Your task to perform on an android device: open a new tab in the chrome app Image 0: 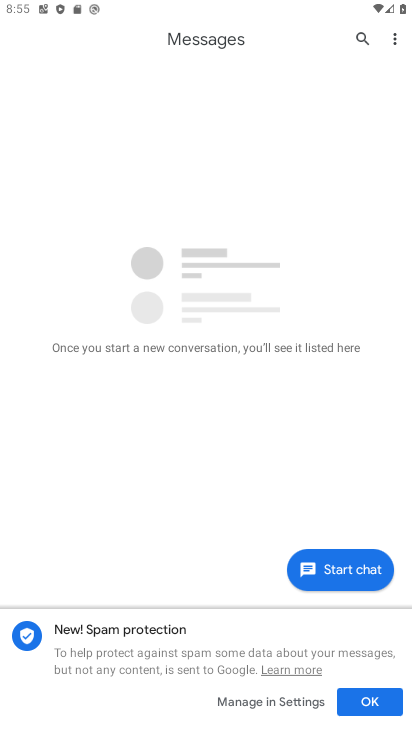
Step 0: press home button
Your task to perform on an android device: open a new tab in the chrome app Image 1: 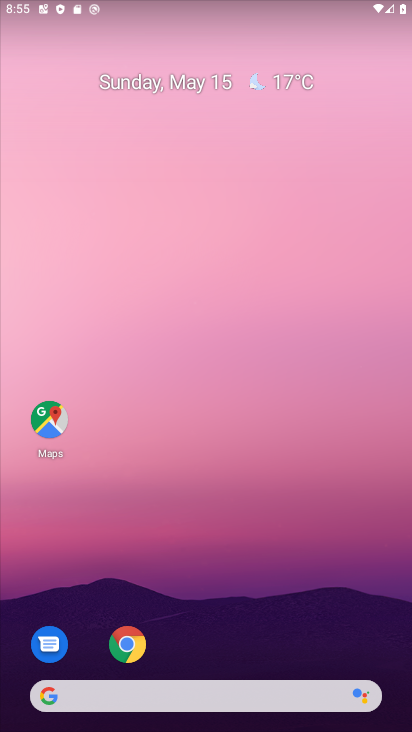
Step 1: drag from (270, 701) to (213, 196)
Your task to perform on an android device: open a new tab in the chrome app Image 2: 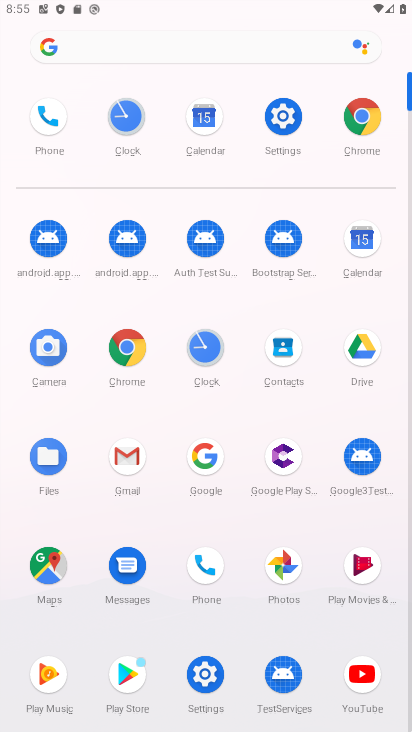
Step 2: click (351, 128)
Your task to perform on an android device: open a new tab in the chrome app Image 3: 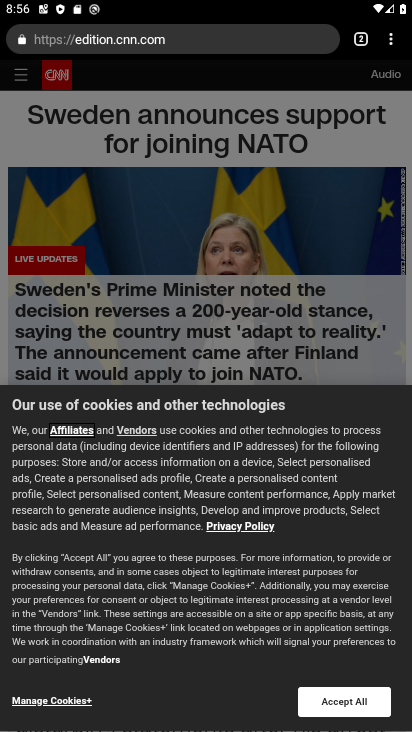
Step 3: click (366, 32)
Your task to perform on an android device: open a new tab in the chrome app Image 4: 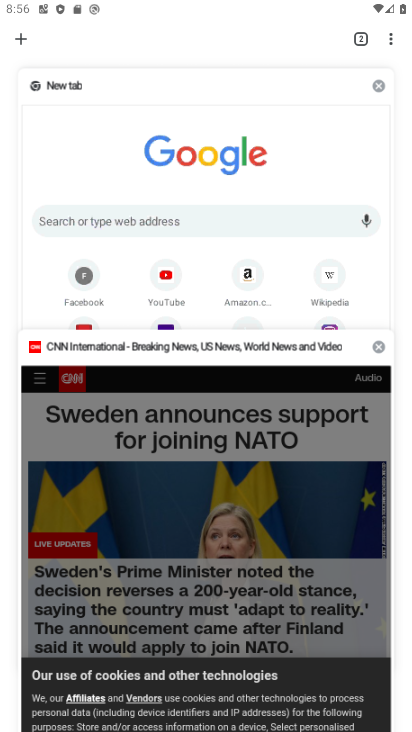
Step 4: click (25, 36)
Your task to perform on an android device: open a new tab in the chrome app Image 5: 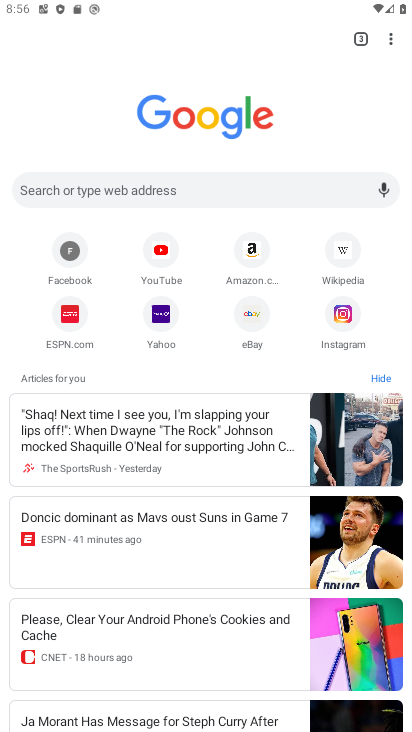
Step 5: task complete